Your task to perform on an android device: allow cookies in the chrome app Image 0: 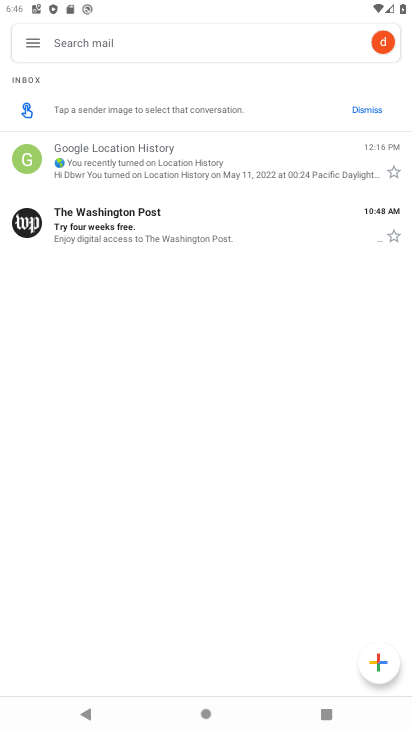
Step 0: press home button
Your task to perform on an android device: allow cookies in the chrome app Image 1: 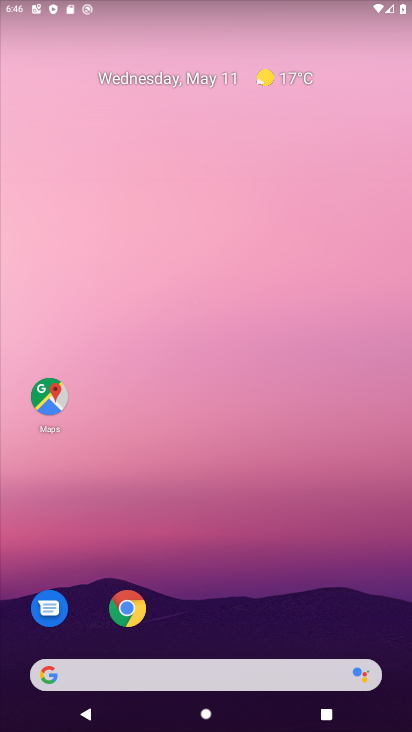
Step 1: click (119, 608)
Your task to perform on an android device: allow cookies in the chrome app Image 2: 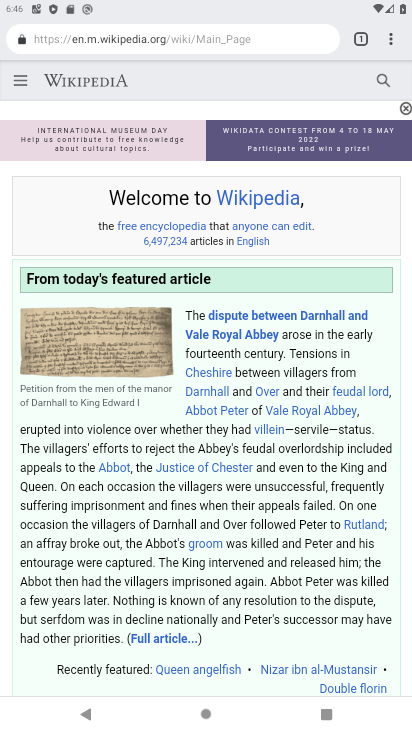
Step 2: click (395, 28)
Your task to perform on an android device: allow cookies in the chrome app Image 3: 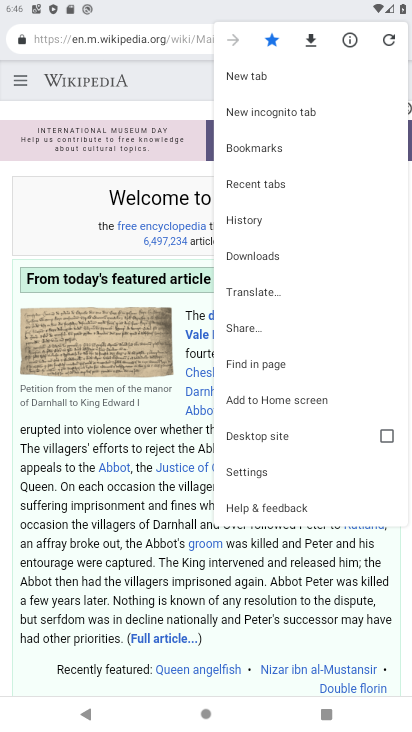
Step 3: click (252, 470)
Your task to perform on an android device: allow cookies in the chrome app Image 4: 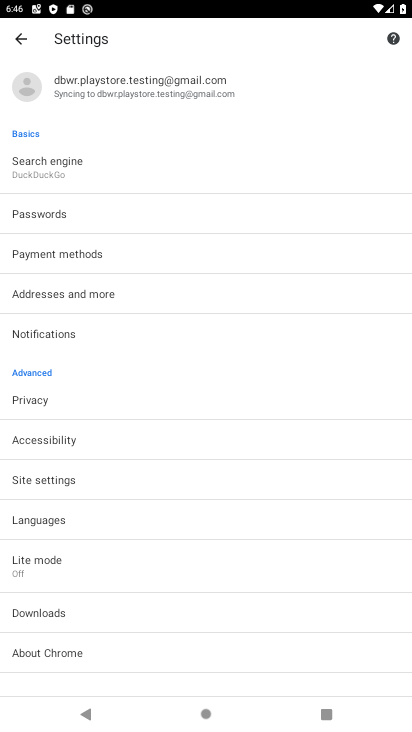
Step 4: click (112, 483)
Your task to perform on an android device: allow cookies in the chrome app Image 5: 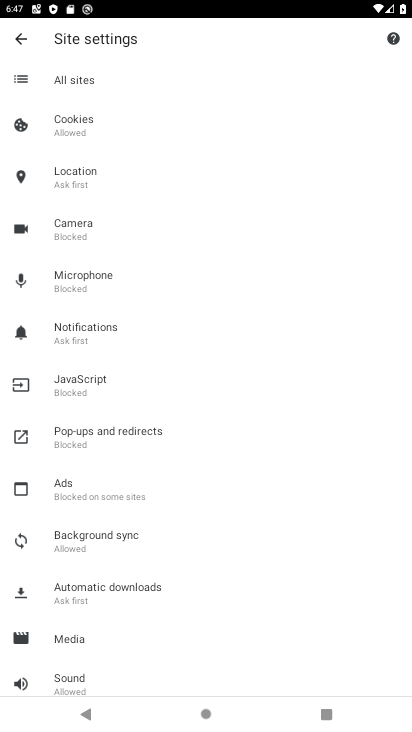
Step 5: click (209, 125)
Your task to perform on an android device: allow cookies in the chrome app Image 6: 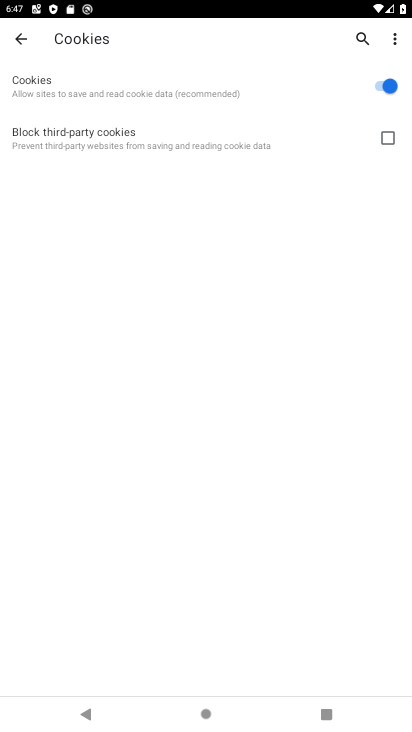
Step 6: task complete